Your task to perform on an android device: set an alarm Image 0: 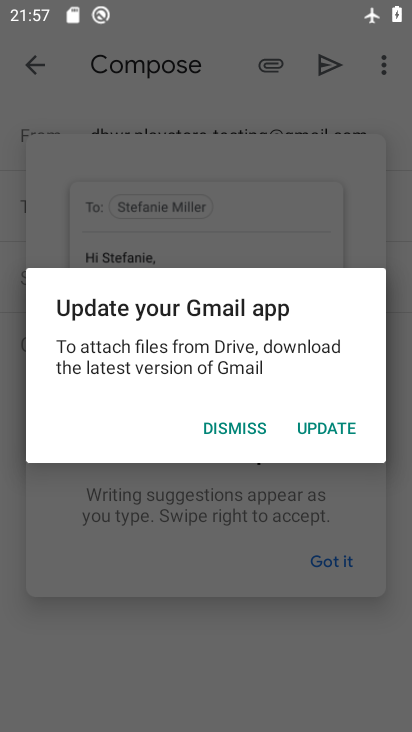
Step 0: press home button
Your task to perform on an android device: set an alarm Image 1: 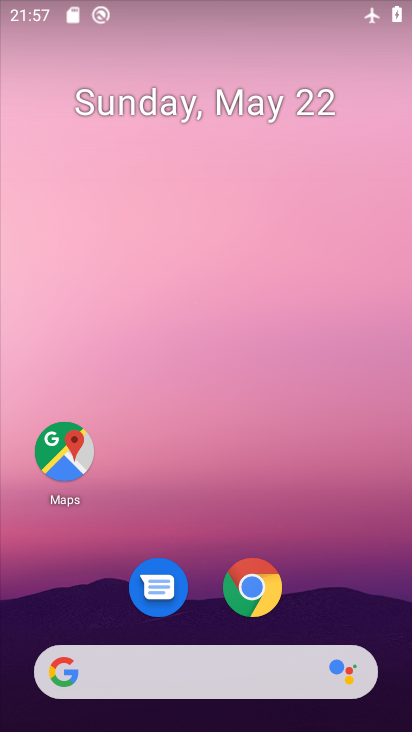
Step 1: drag from (211, 479) to (201, 20)
Your task to perform on an android device: set an alarm Image 2: 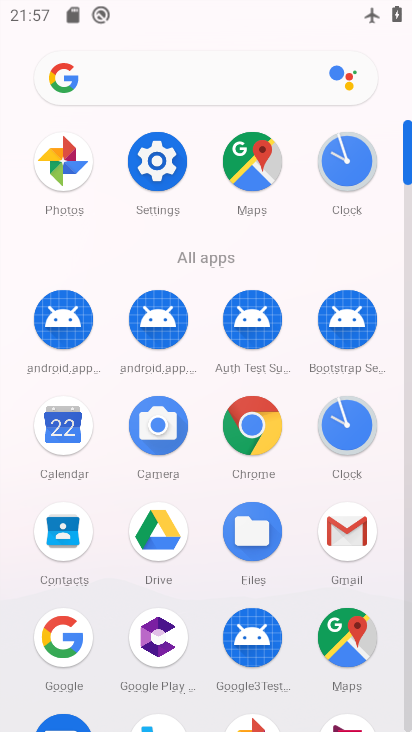
Step 2: click (331, 158)
Your task to perform on an android device: set an alarm Image 3: 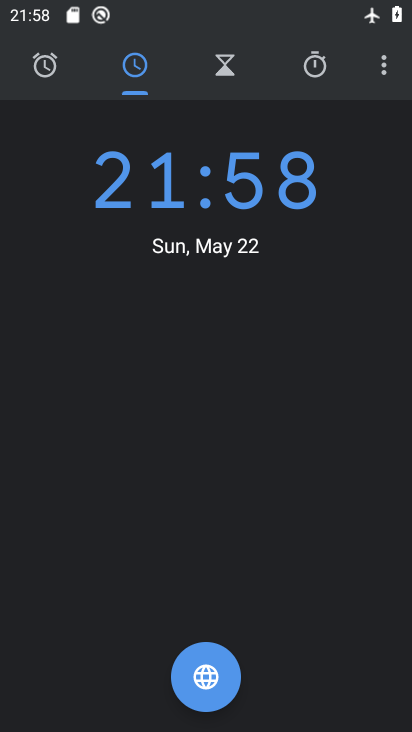
Step 3: click (316, 60)
Your task to perform on an android device: set an alarm Image 4: 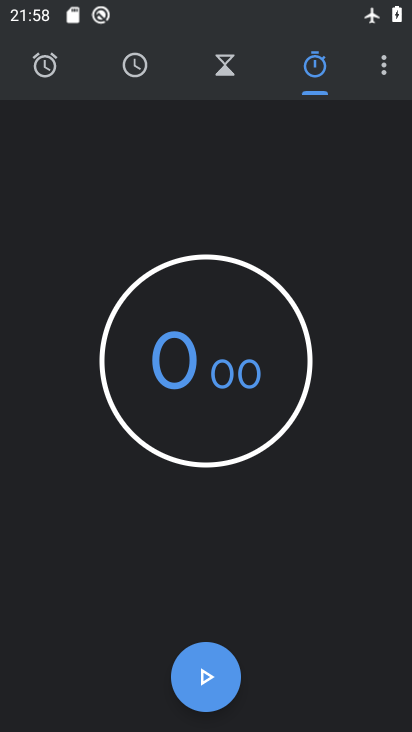
Step 4: click (40, 63)
Your task to perform on an android device: set an alarm Image 5: 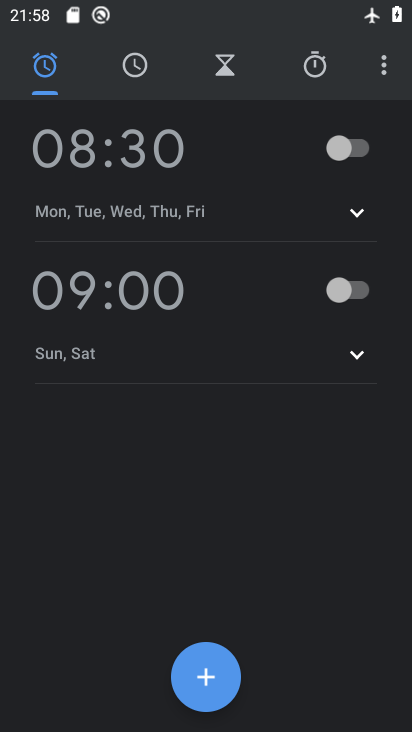
Step 5: click (203, 682)
Your task to perform on an android device: set an alarm Image 6: 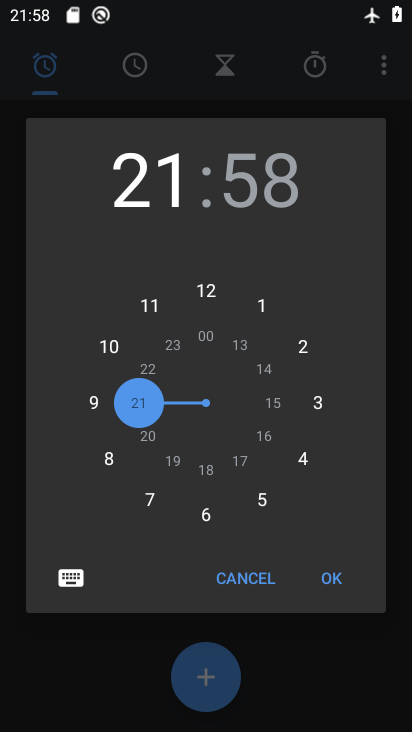
Step 6: click (108, 343)
Your task to perform on an android device: set an alarm Image 7: 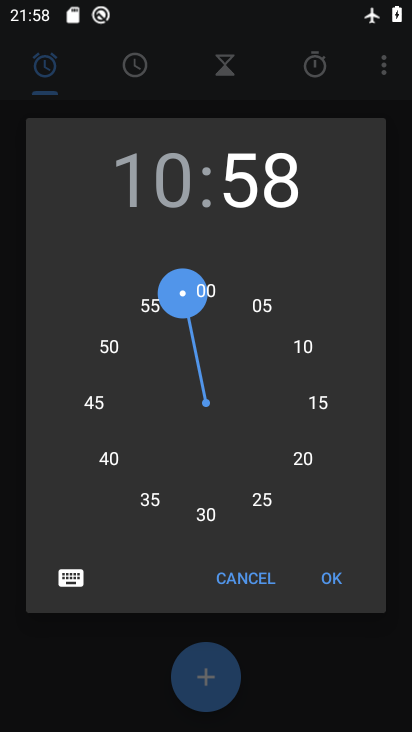
Step 7: click (213, 287)
Your task to perform on an android device: set an alarm Image 8: 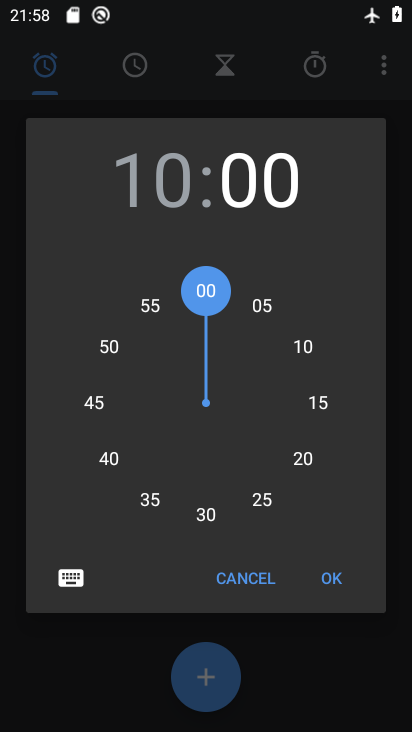
Step 8: click (324, 570)
Your task to perform on an android device: set an alarm Image 9: 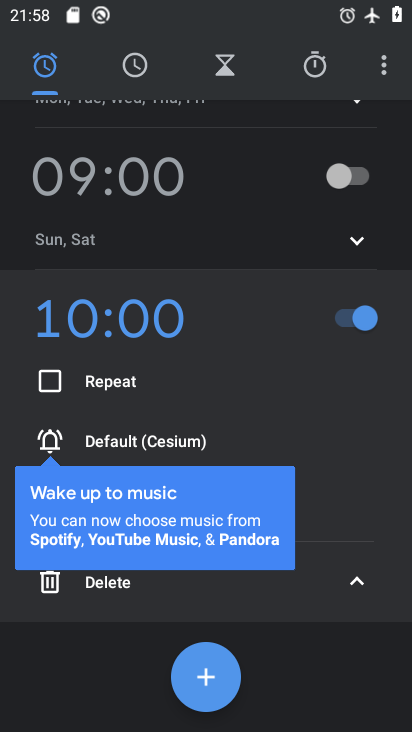
Step 9: task complete